Your task to perform on an android device: open chrome and create a bookmark for the current page Image 0: 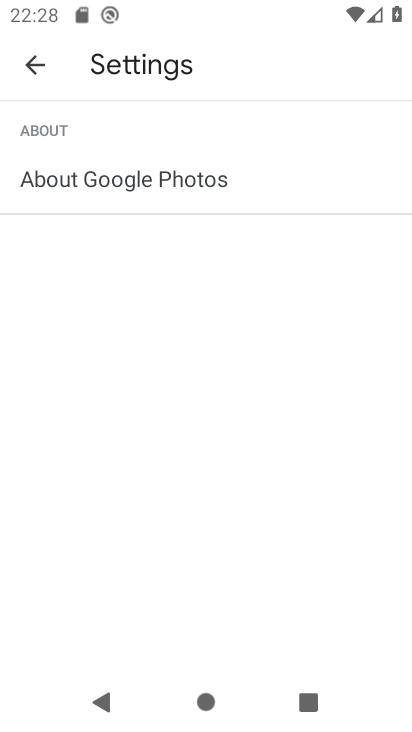
Step 0: press home button
Your task to perform on an android device: open chrome and create a bookmark for the current page Image 1: 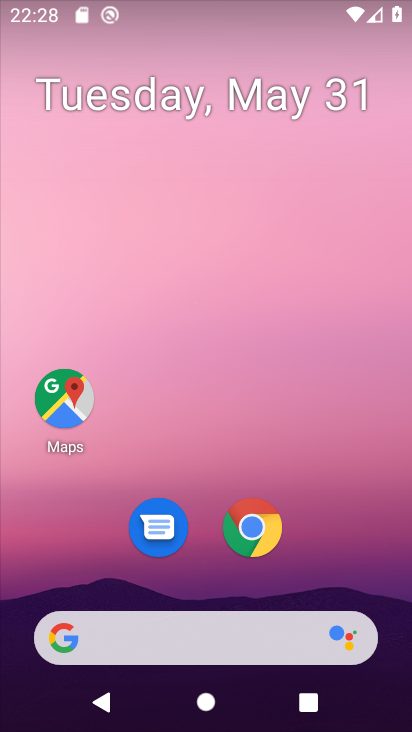
Step 1: drag from (368, 570) to (167, 142)
Your task to perform on an android device: open chrome and create a bookmark for the current page Image 2: 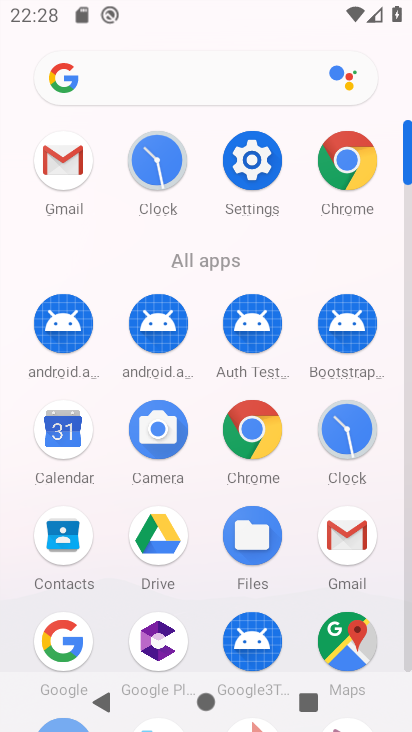
Step 2: click (337, 170)
Your task to perform on an android device: open chrome and create a bookmark for the current page Image 3: 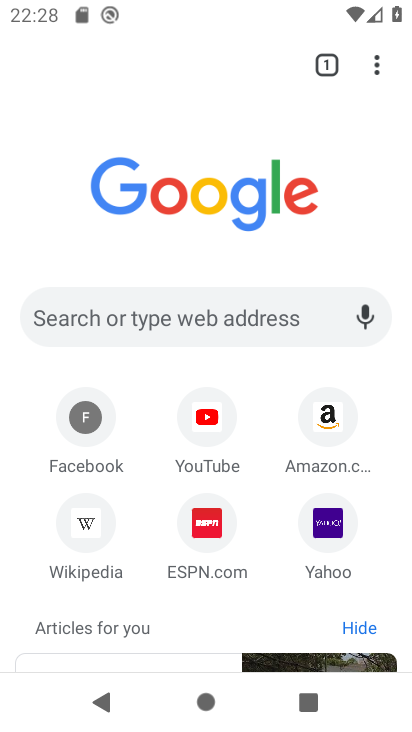
Step 3: click (373, 64)
Your task to perform on an android device: open chrome and create a bookmark for the current page Image 4: 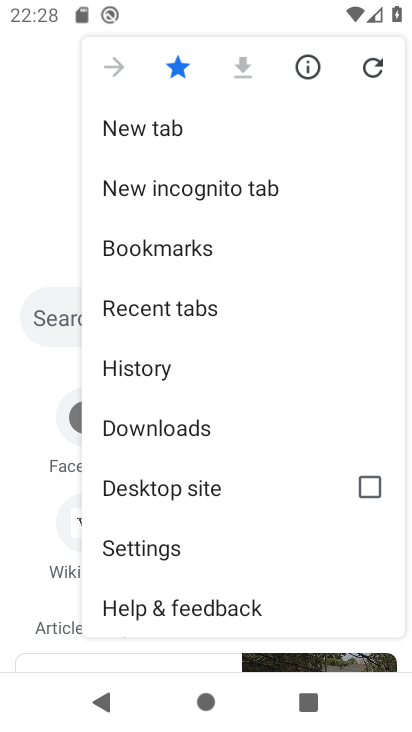
Step 4: task complete